Your task to perform on an android device: turn pop-ups off in chrome Image 0: 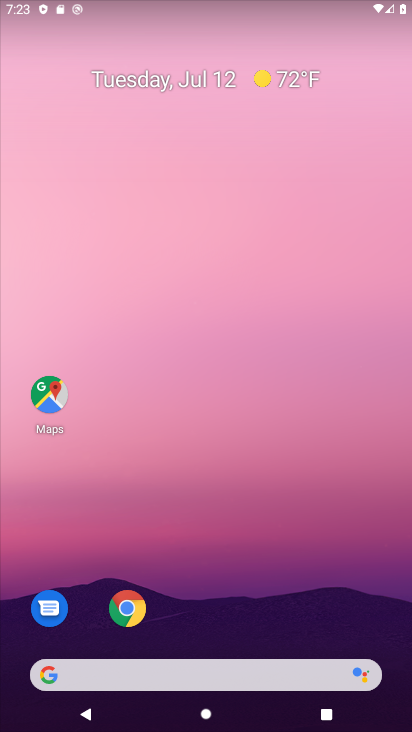
Step 0: drag from (361, 602) to (375, 72)
Your task to perform on an android device: turn pop-ups off in chrome Image 1: 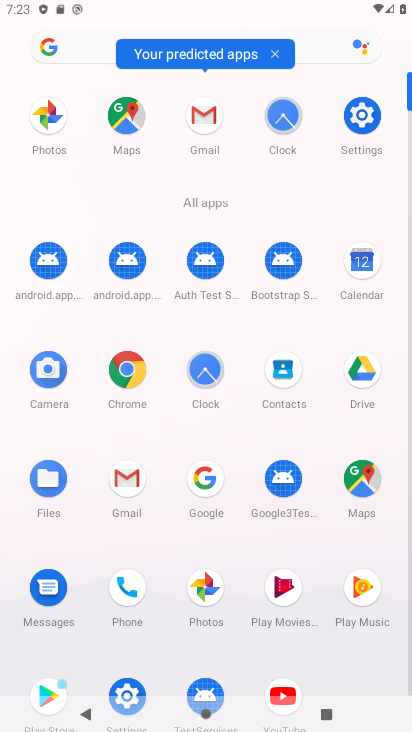
Step 1: click (124, 360)
Your task to perform on an android device: turn pop-ups off in chrome Image 2: 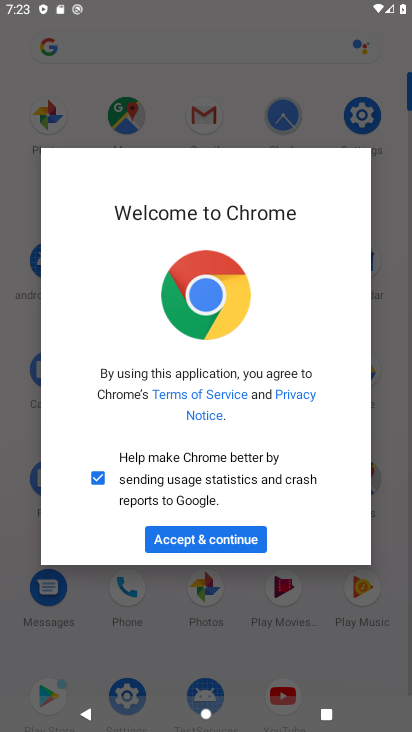
Step 2: click (245, 538)
Your task to perform on an android device: turn pop-ups off in chrome Image 3: 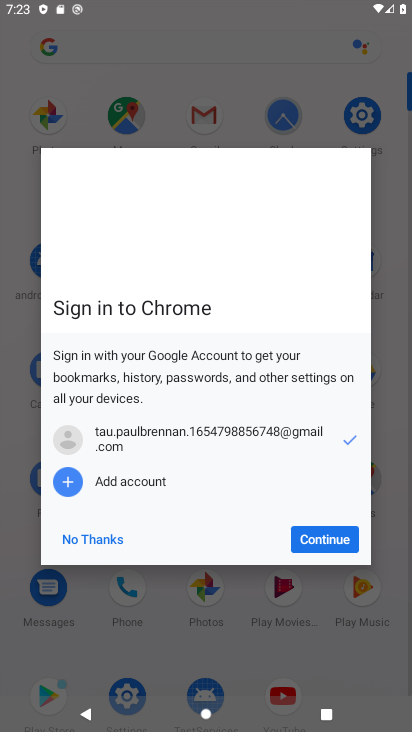
Step 3: click (339, 546)
Your task to perform on an android device: turn pop-ups off in chrome Image 4: 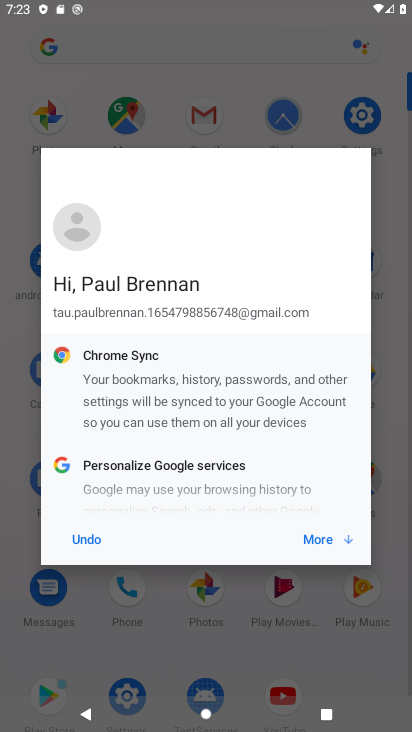
Step 4: click (317, 537)
Your task to perform on an android device: turn pop-ups off in chrome Image 5: 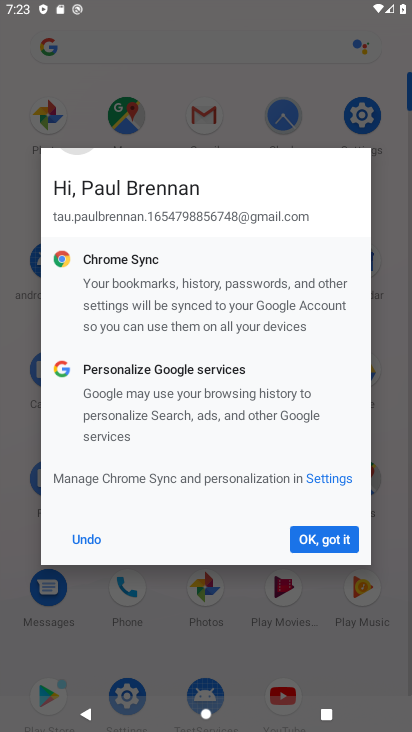
Step 5: click (340, 534)
Your task to perform on an android device: turn pop-ups off in chrome Image 6: 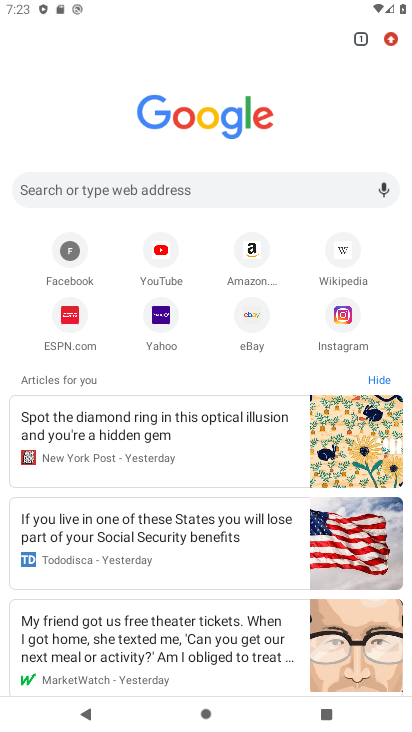
Step 6: click (389, 37)
Your task to perform on an android device: turn pop-ups off in chrome Image 7: 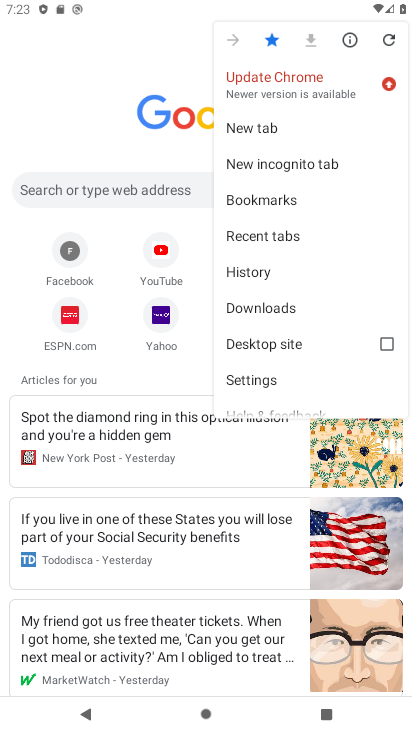
Step 7: click (291, 377)
Your task to perform on an android device: turn pop-ups off in chrome Image 8: 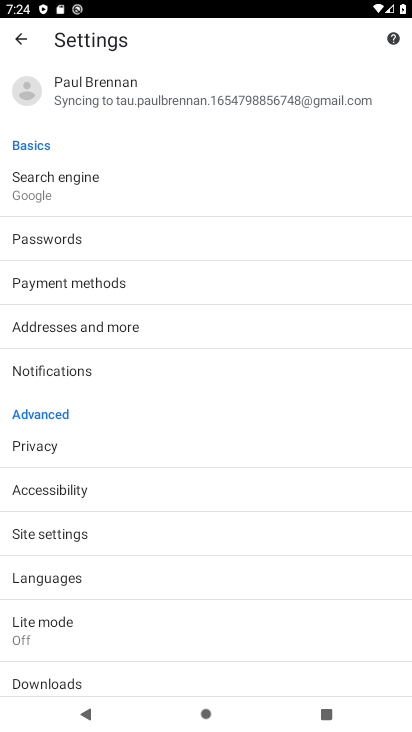
Step 8: drag from (294, 466) to (323, 286)
Your task to perform on an android device: turn pop-ups off in chrome Image 9: 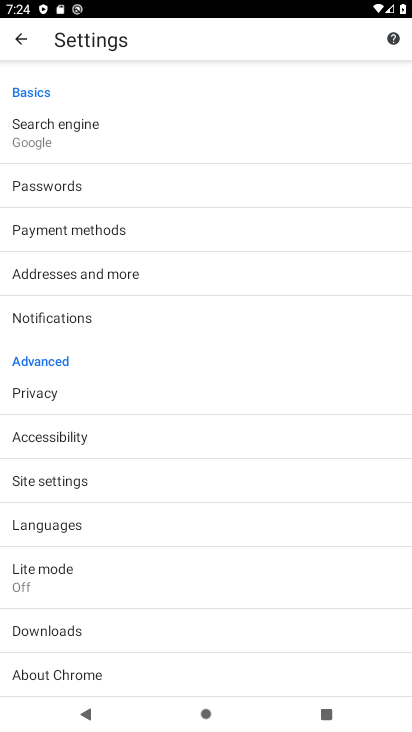
Step 9: click (301, 479)
Your task to perform on an android device: turn pop-ups off in chrome Image 10: 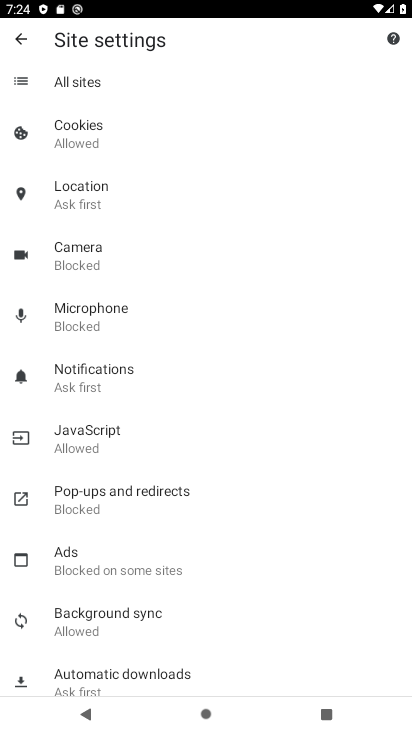
Step 10: drag from (328, 519) to (350, 399)
Your task to perform on an android device: turn pop-ups off in chrome Image 11: 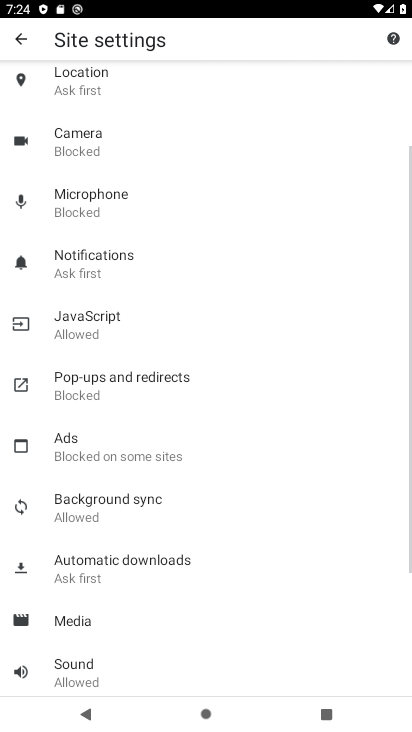
Step 11: drag from (335, 520) to (362, 323)
Your task to perform on an android device: turn pop-ups off in chrome Image 12: 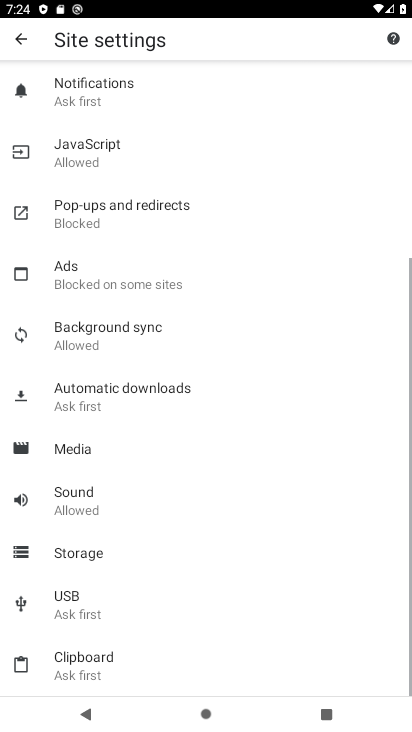
Step 12: drag from (335, 505) to (337, 298)
Your task to perform on an android device: turn pop-ups off in chrome Image 13: 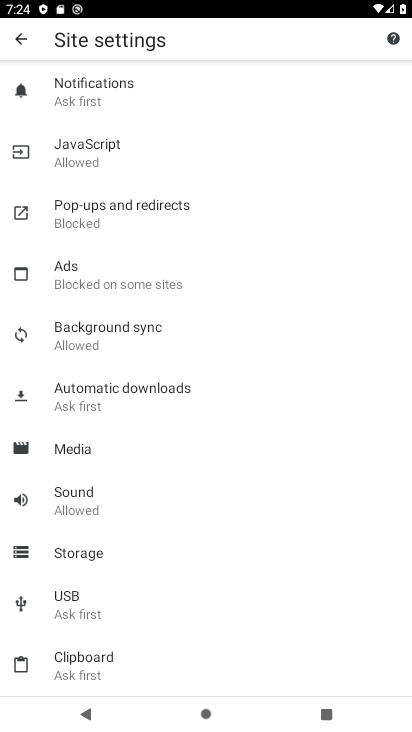
Step 13: click (180, 215)
Your task to perform on an android device: turn pop-ups off in chrome Image 14: 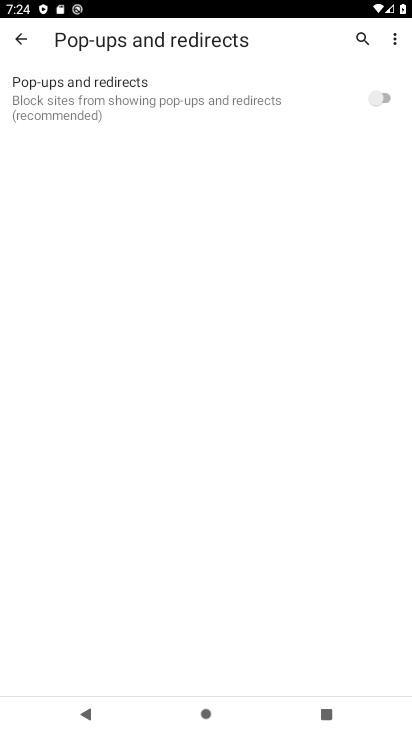
Step 14: task complete